Your task to perform on an android device: Open settings on Google Maps Image 0: 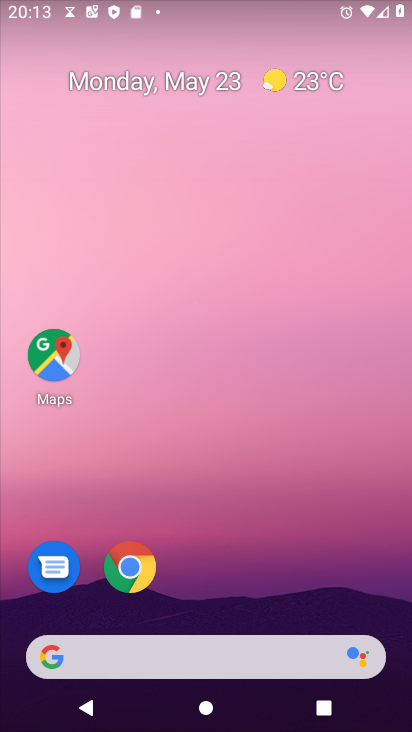
Step 0: click (58, 334)
Your task to perform on an android device: Open settings on Google Maps Image 1: 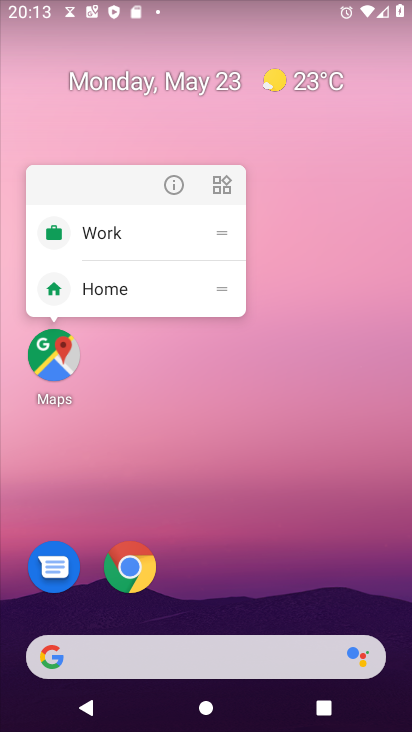
Step 1: click (53, 348)
Your task to perform on an android device: Open settings on Google Maps Image 2: 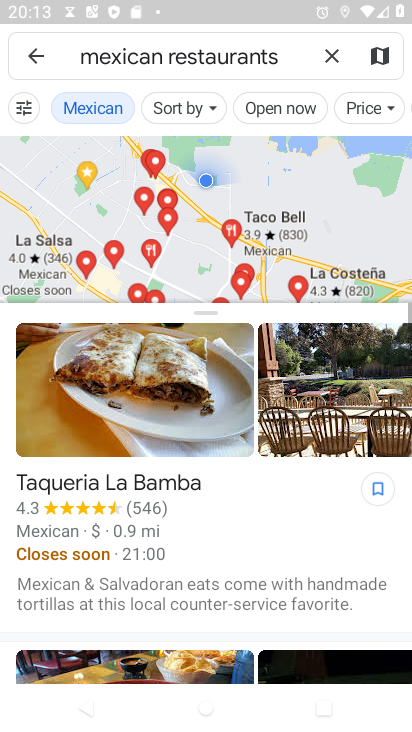
Step 2: click (320, 54)
Your task to perform on an android device: Open settings on Google Maps Image 3: 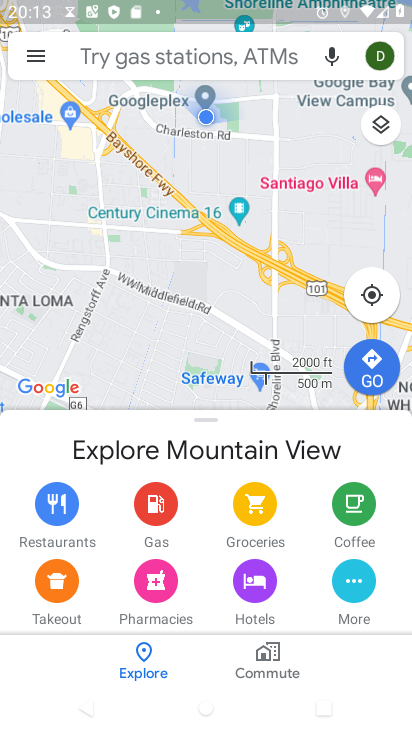
Step 3: click (37, 63)
Your task to perform on an android device: Open settings on Google Maps Image 4: 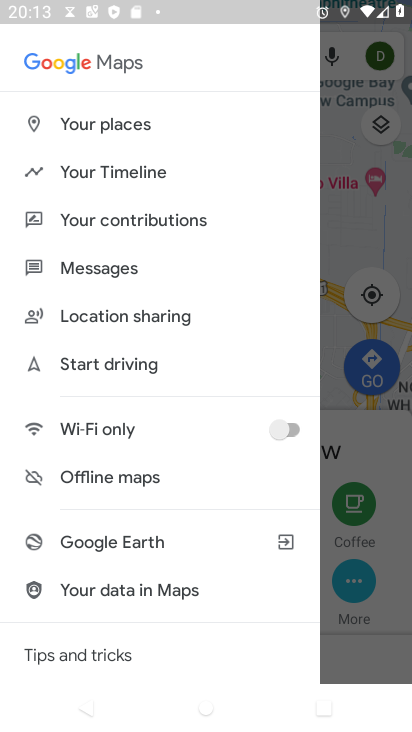
Step 4: drag from (157, 189) to (137, 551)
Your task to perform on an android device: Open settings on Google Maps Image 5: 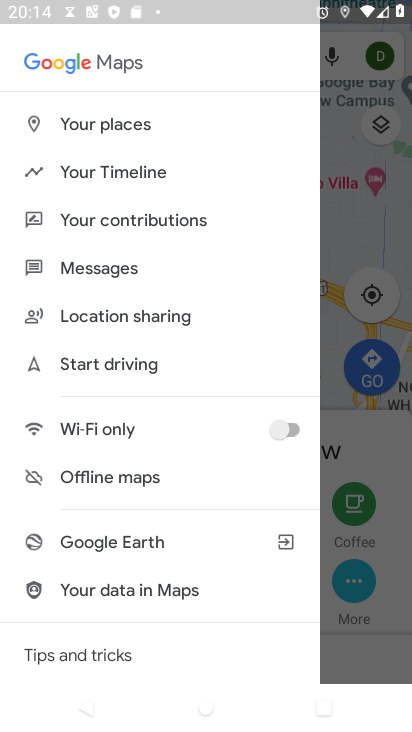
Step 5: drag from (133, 533) to (171, 184)
Your task to perform on an android device: Open settings on Google Maps Image 6: 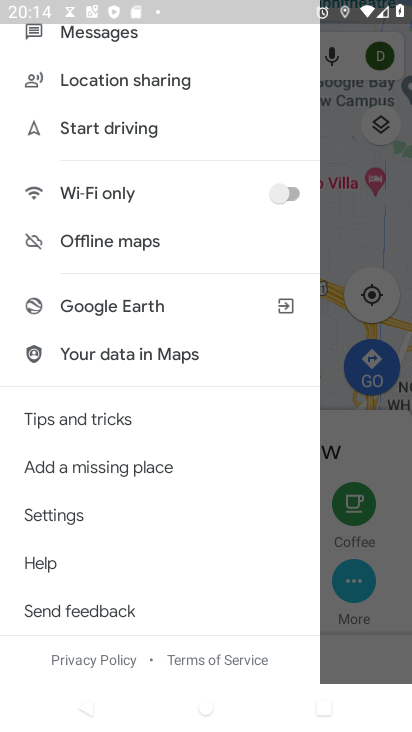
Step 6: click (73, 518)
Your task to perform on an android device: Open settings on Google Maps Image 7: 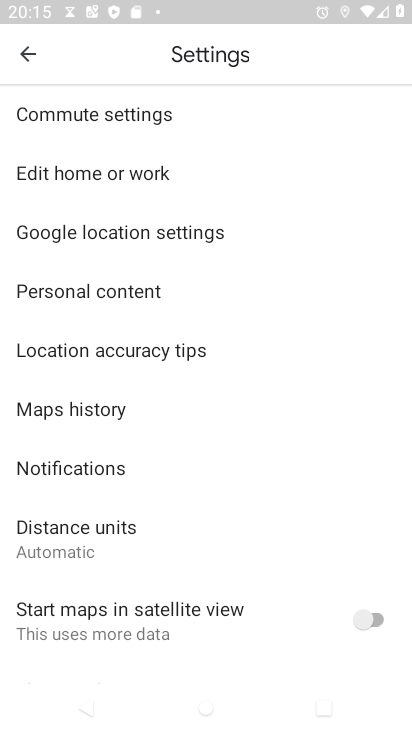
Step 7: task complete